Your task to perform on an android device: toggle notification dots Image 0: 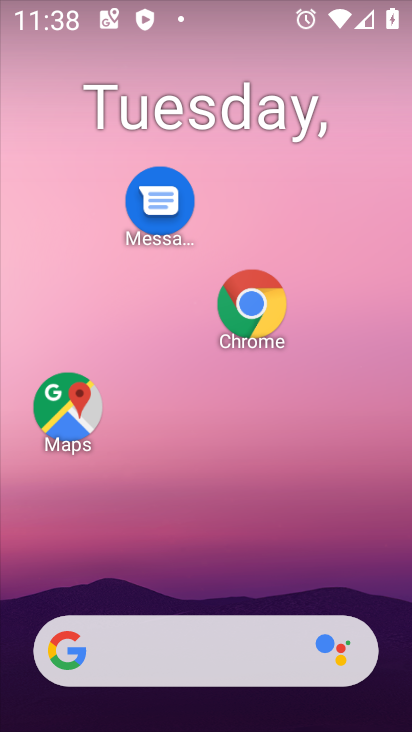
Step 0: drag from (264, 550) to (298, 245)
Your task to perform on an android device: toggle notification dots Image 1: 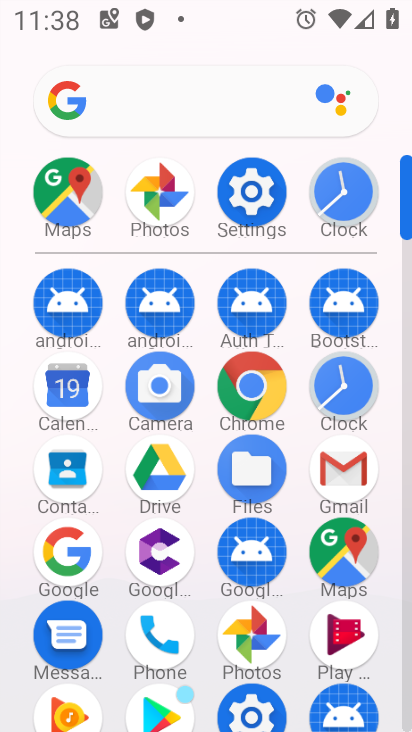
Step 1: click (252, 183)
Your task to perform on an android device: toggle notification dots Image 2: 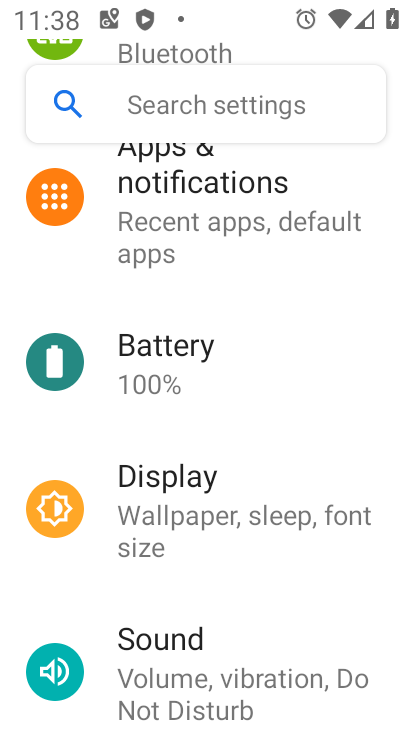
Step 2: click (226, 101)
Your task to perform on an android device: toggle notification dots Image 3: 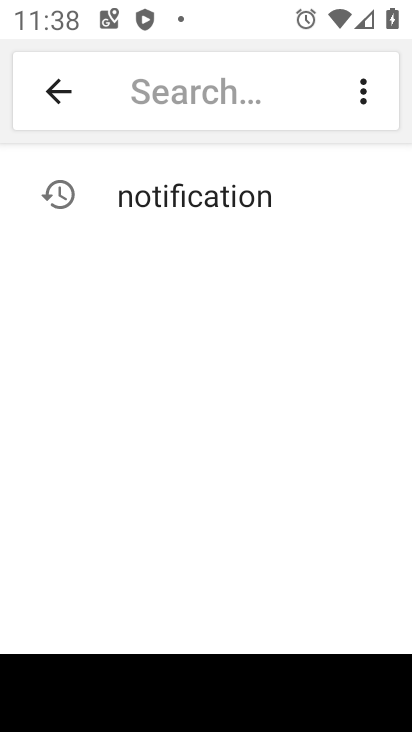
Step 3: type "notification dots"
Your task to perform on an android device: toggle notification dots Image 4: 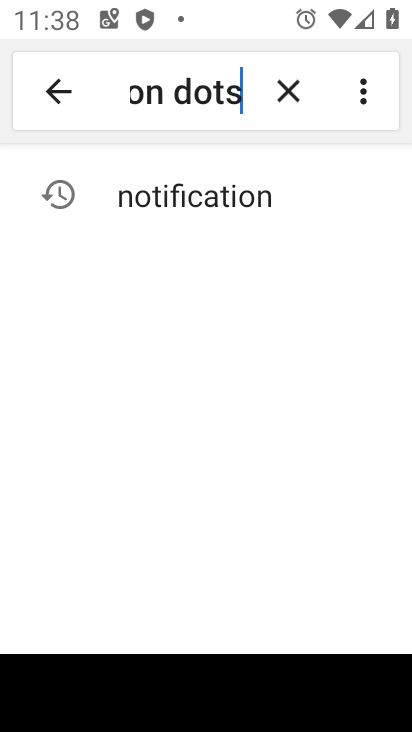
Step 4: click (264, 187)
Your task to perform on an android device: toggle notification dots Image 5: 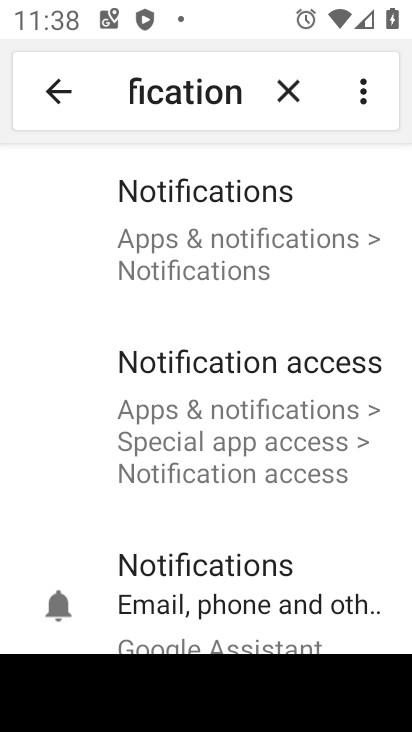
Step 5: drag from (212, 499) to (251, 726)
Your task to perform on an android device: toggle notification dots Image 6: 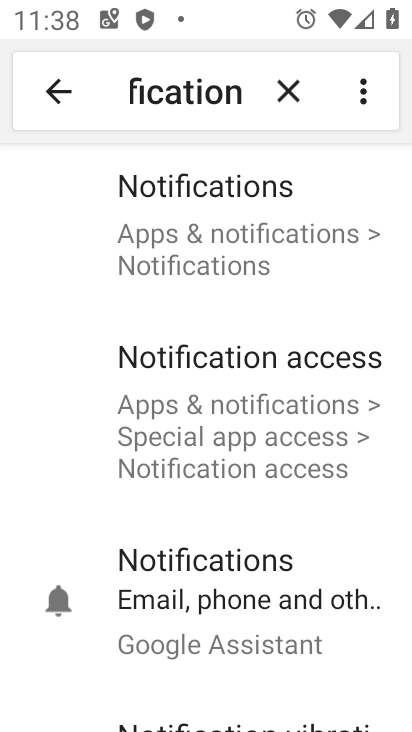
Step 6: click (250, 91)
Your task to perform on an android device: toggle notification dots Image 7: 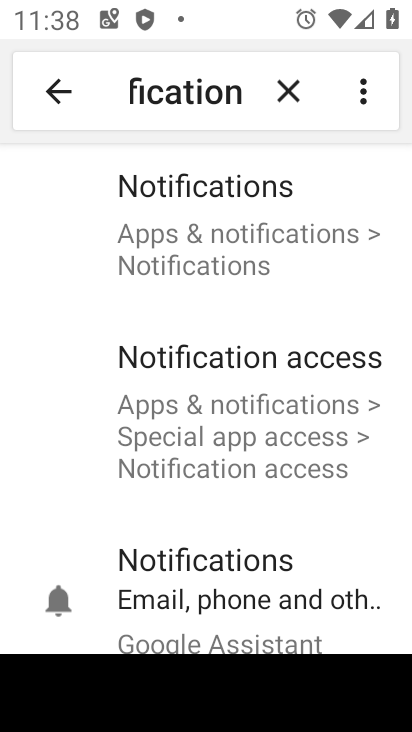
Step 7: type " dots"
Your task to perform on an android device: toggle notification dots Image 8: 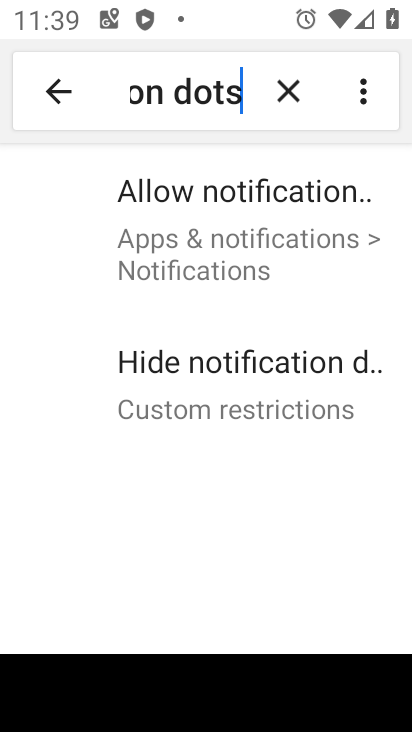
Step 8: click (223, 215)
Your task to perform on an android device: toggle notification dots Image 9: 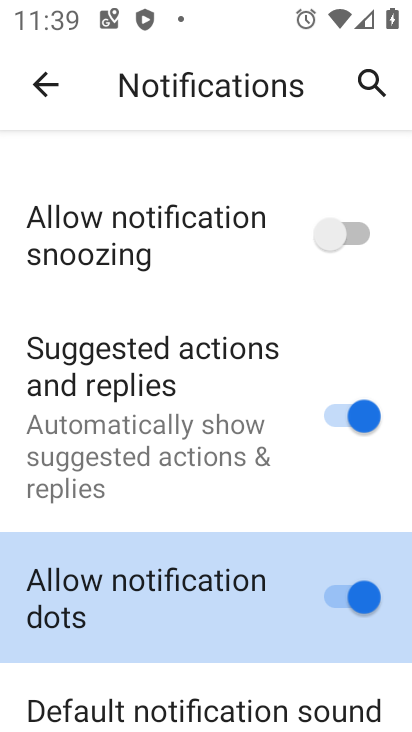
Step 9: click (359, 599)
Your task to perform on an android device: toggle notification dots Image 10: 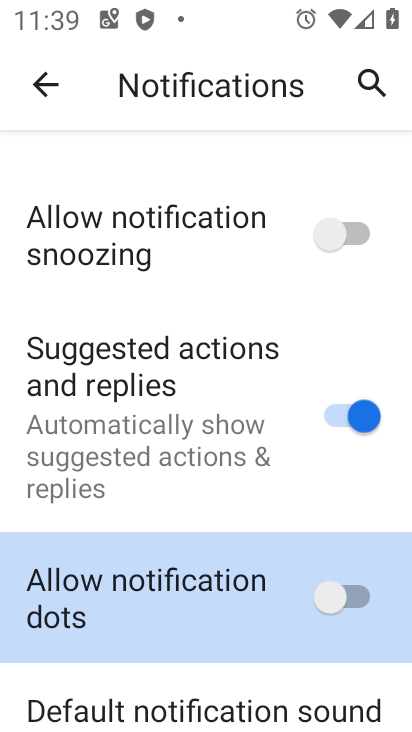
Step 10: task complete